Your task to perform on an android device: Search for Italian restaurants on Maps Image 0: 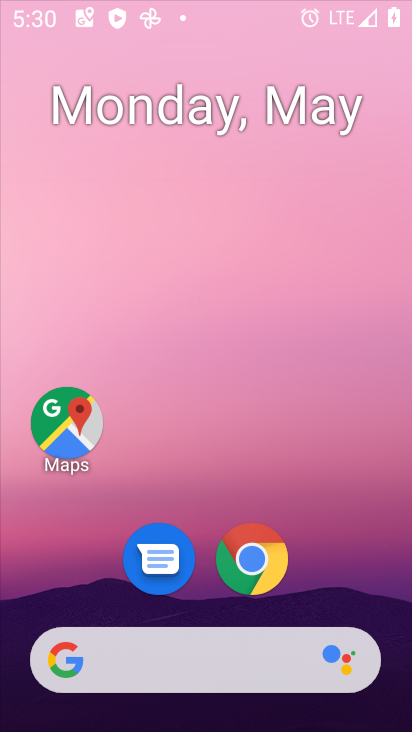
Step 0: press home button
Your task to perform on an android device: Search for Italian restaurants on Maps Image 1: 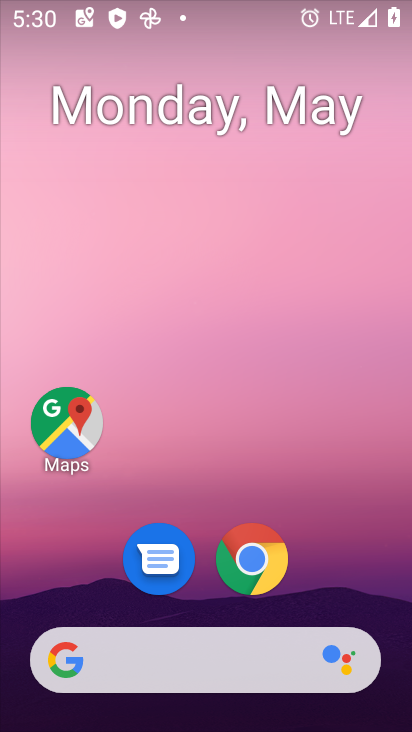
Step 1: drag from (257, 663) to (343, 14)
Your task to perform on an android device: Search for Italian restaurants on Maps Image 2: 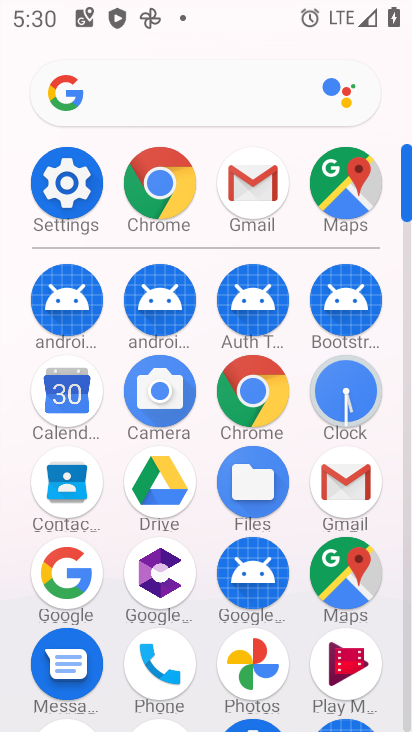
Step 2: click (333, 576)
Your task to perform on an android device: Search for Italian restaurants on Maps Image 3: 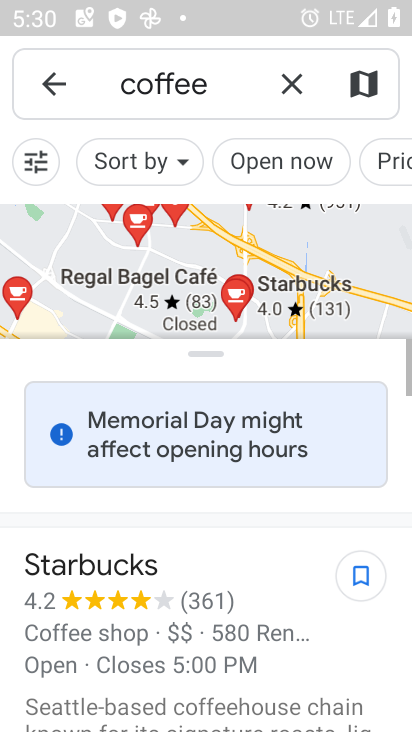
Step 3: click (290, 82)
Your task to perform on an android device: Search for Italian restaurants on Maps Image 4: 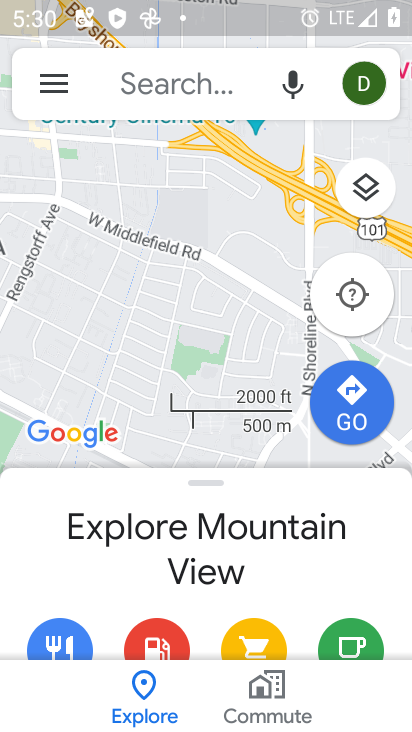
Step 4: click (211, 87)
Your task to perform on an android device: Search for Italian restaurants on Maps Image 5: 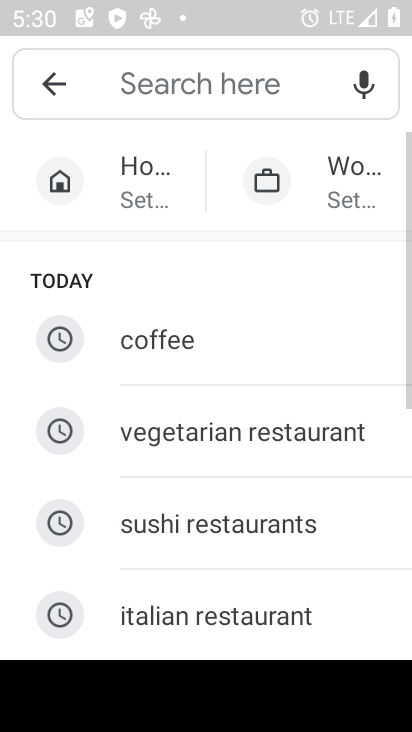
Step 5: click (259, 594)
Your task to perform on an android device: Search for Italian restaurants on Maps Image 6: 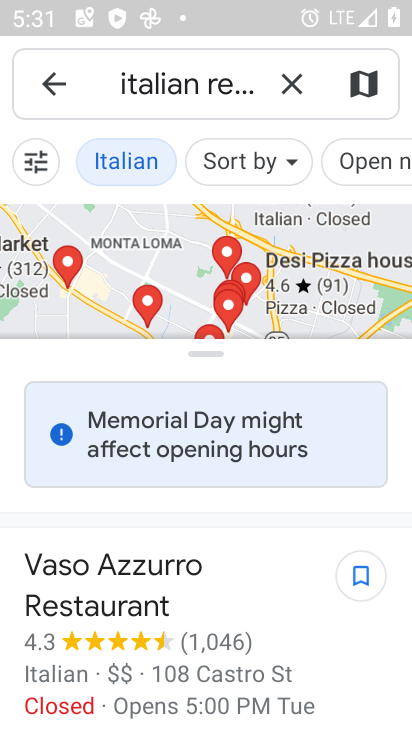
Step 6: task complete